Your task to perform on an android device: open sync settings in chrome Image 0: 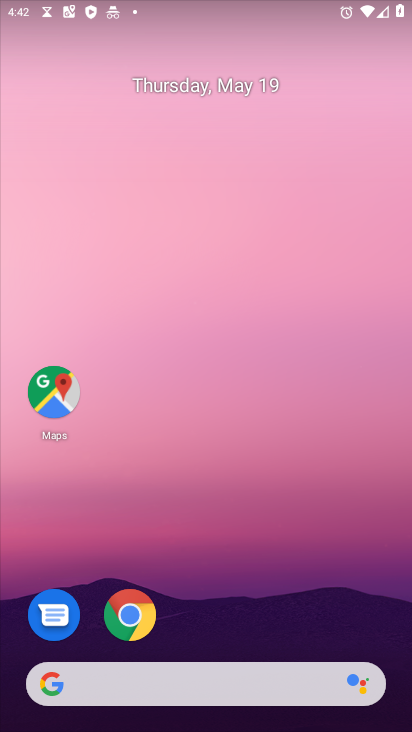
Step 0: drag from (302, 671) to (181, 153)
Your task to perform on an android device: open sync settings in chrome Image 1: 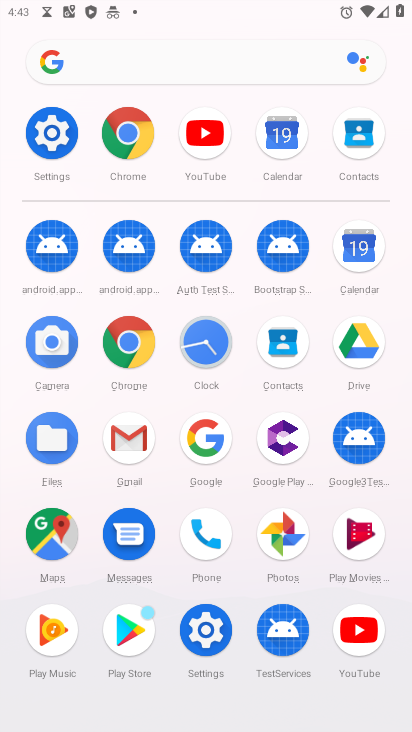
Step 1: click (115, 131)
Your task to perform on an android device: open sync settings in chrome Image 2: 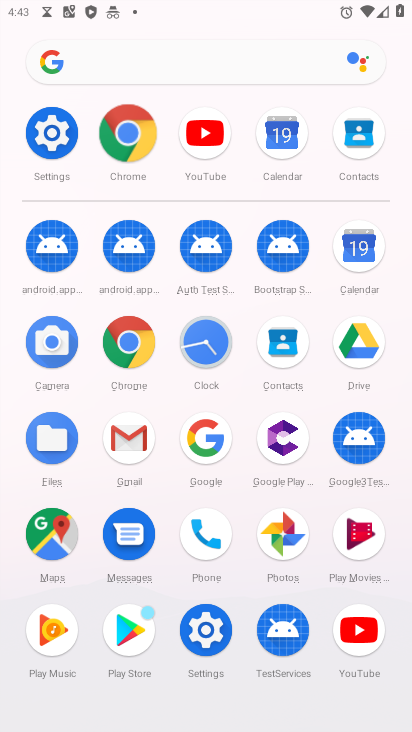
Step 2: click (115, 131)
Your task to perform on an android device: open sync settings in chrome Image 3: 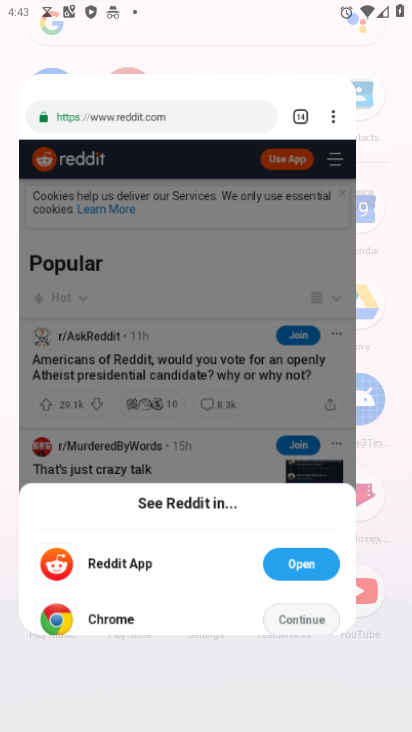
Step 3: click (115, 132)
Your task to perform on an android device: open sync settings in chrome Image 4: 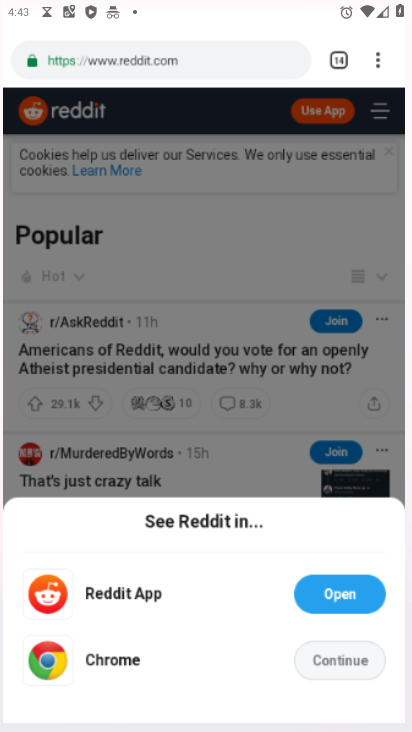
Step 4: click (114, 133)
Your task to perform on an android device: open sync settings in chrome Image 5: 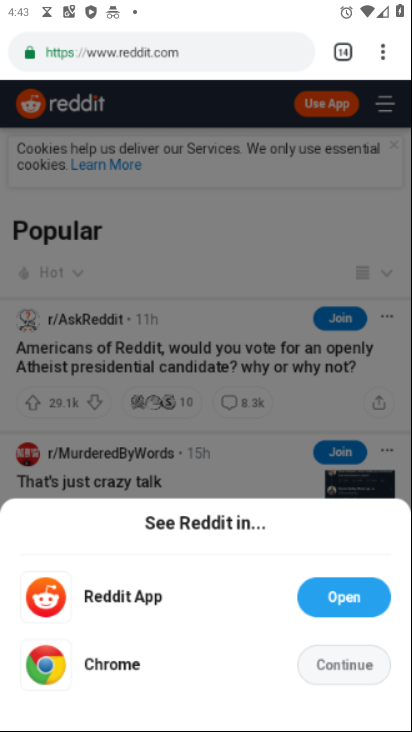
Step 5: click (113, 133)
Your task to perform on an android device: open sync settings in chrome Image 6: 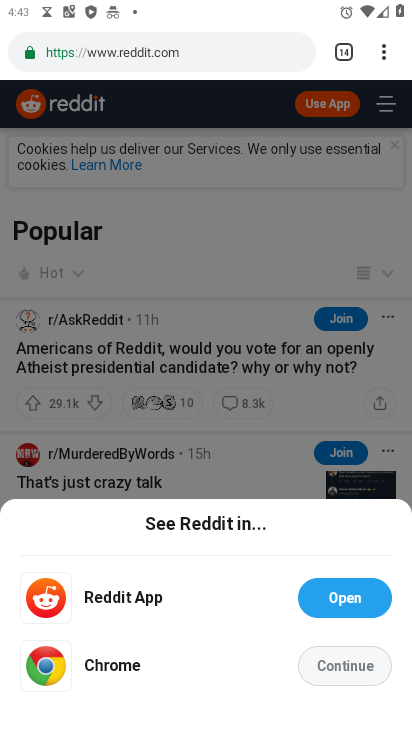
Step 6: click (156, 281)
Your task to perform on an android device: open sync settings in chrome Image 7: 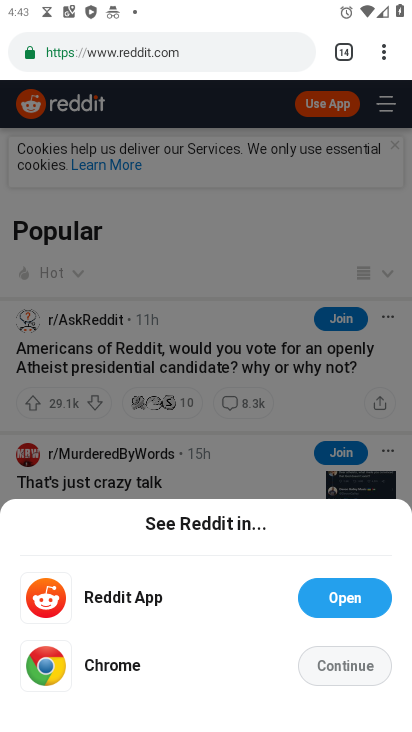
Step 7: click (158, 281)
Your task to perform on an android device: open sync settings in chrome Image 8: 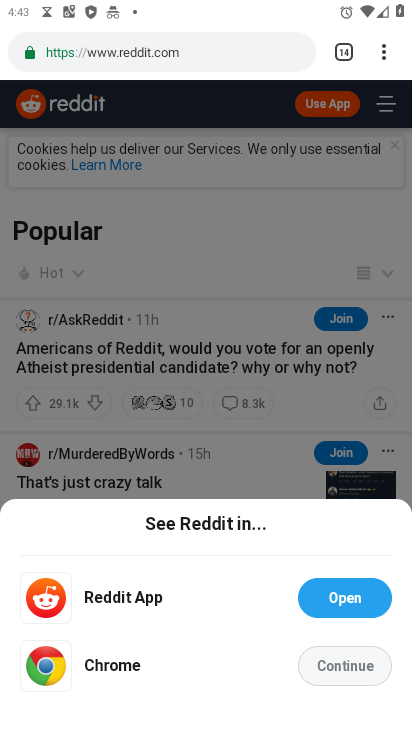
Step 8: click (158, 281)
Your task to perform on an android device: open sync settings in chrome Image 9: 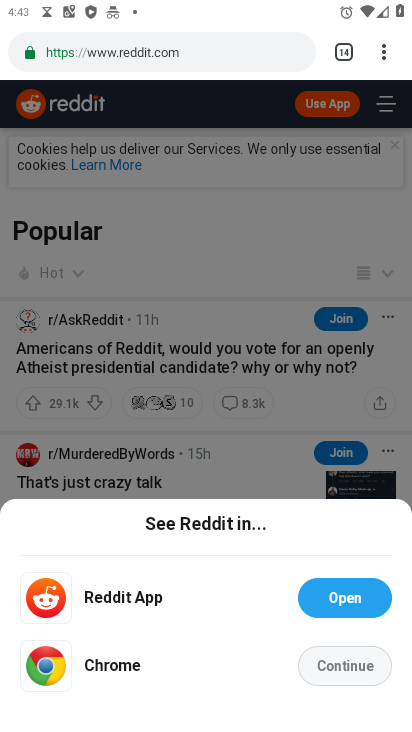
Step 9: click (159, 281)
Your task to perform on an android device: open sync settings in chrome Image 10: 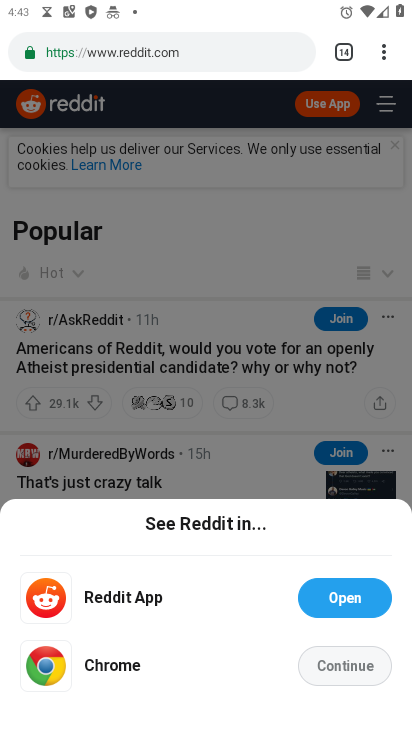
Step 10: click (182, 247)
Your task to perform on an android device: open sync settings in chrome Image 11: 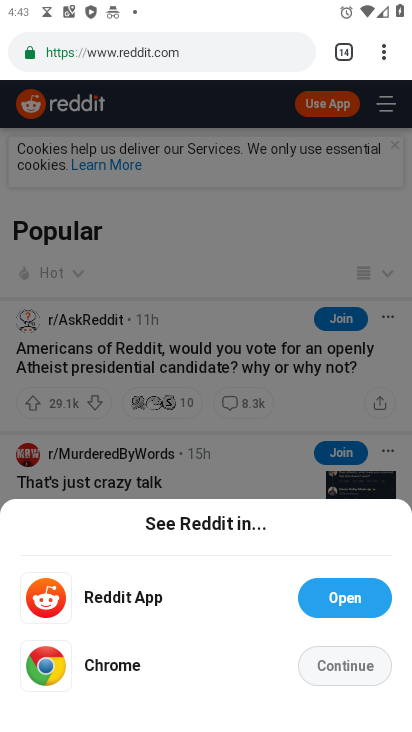
Step 11: click (184, 245)
Your task to perform on an android device: open sync settings in chrome Image 12: 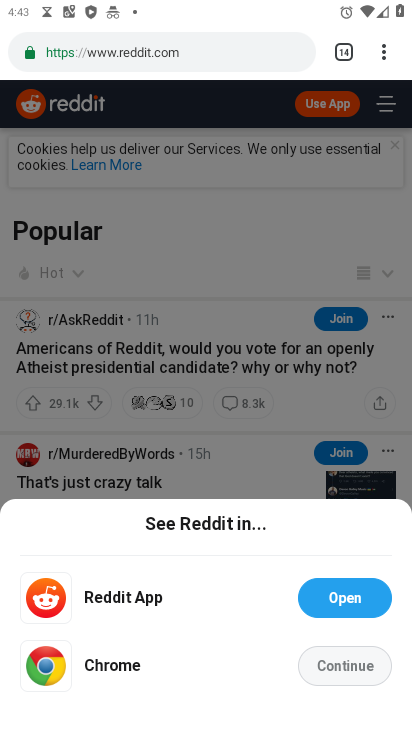
Step 12: click (187, 249)
Your task to perform on an android device: open sync settings in chrome Image 13: 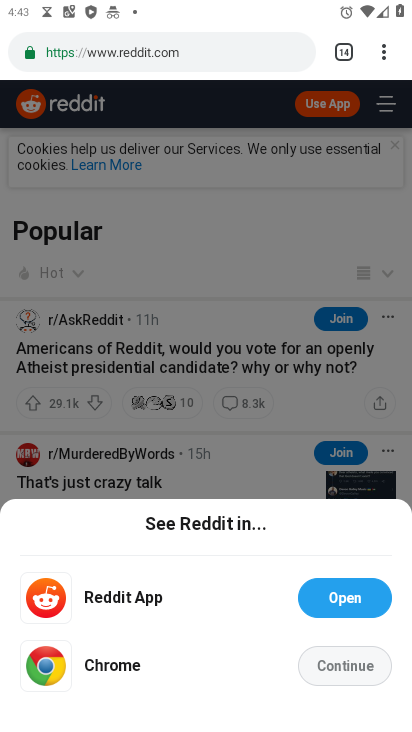
Step 13: click (304, 211)
Your task to perform on an android device: open sync settings in chrome Image 14: 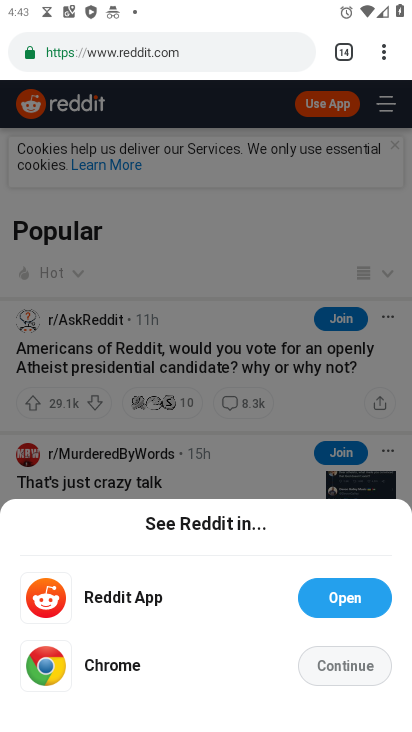
Step 14: click (304, 211)
Your task to perform on an android device: open sync settings in chrome Image 15: 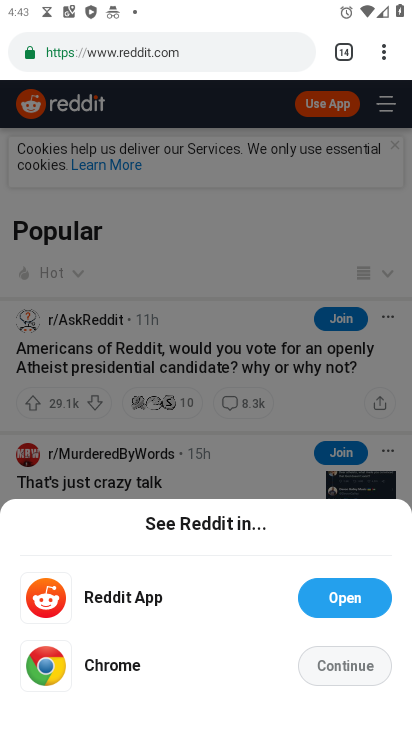
Step 15: click (304, 211)
Your task to perform on an android device: open sync settings in chrome Image 16: 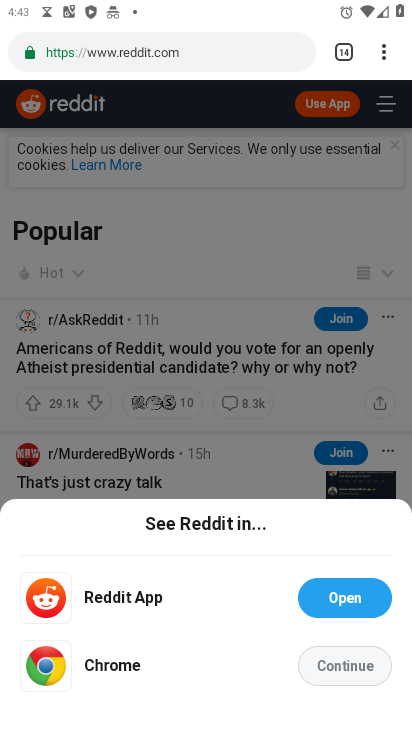
Step 16: press back button
Your task to perform on an android device: open sync settings in chrome Image 17: 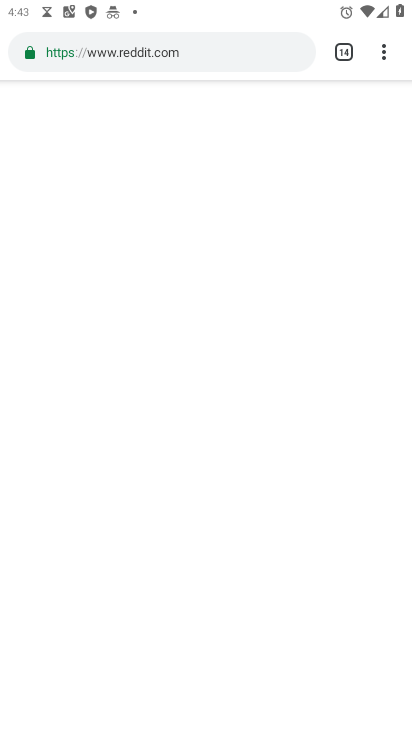
Step 17: press back button
Your task to perform on an android device: open sync settings in chrome Image 18: 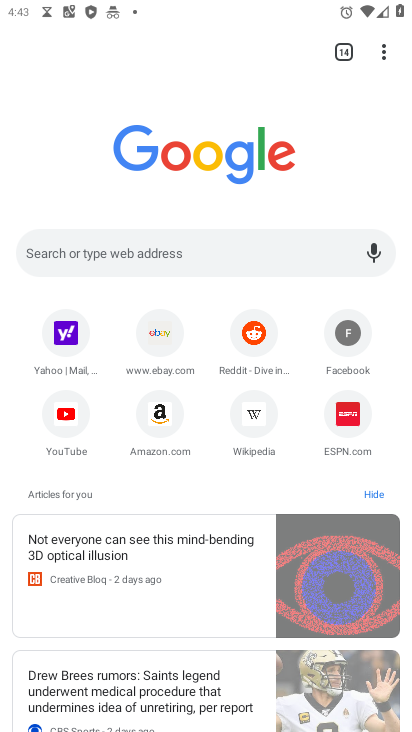
Step 18: press back button
Your task to perform on an android device: open sync settings in chrome Image 19: 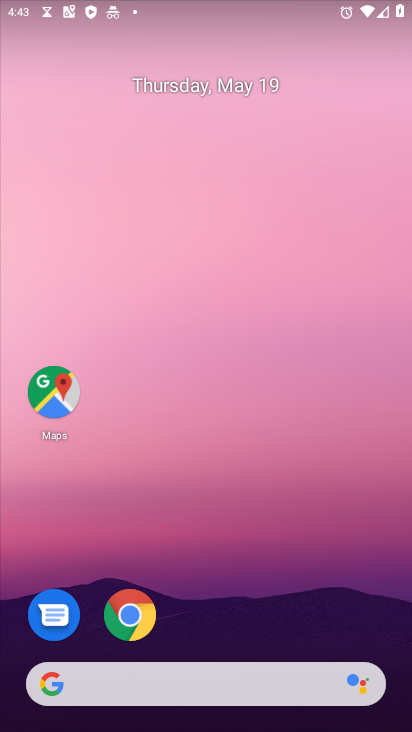
Step 19: click (379, 46)
Your task to perform on an android device: open sync settings in chrome Image 20: 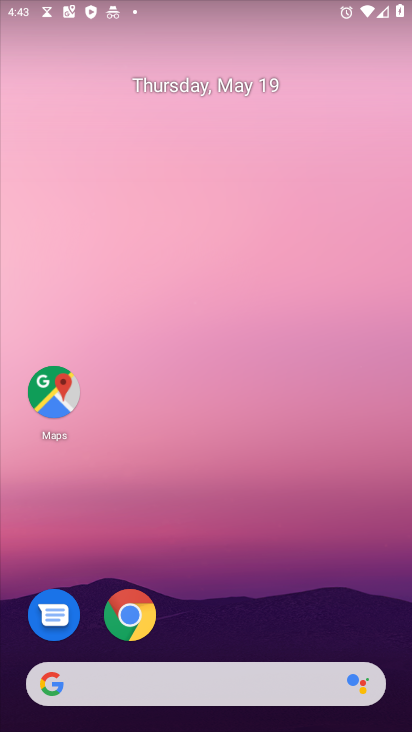
Step 20: drag from (262, 604) to (192, 241)
Your task to perform on an android device: open sync settings in chrome Image 21: 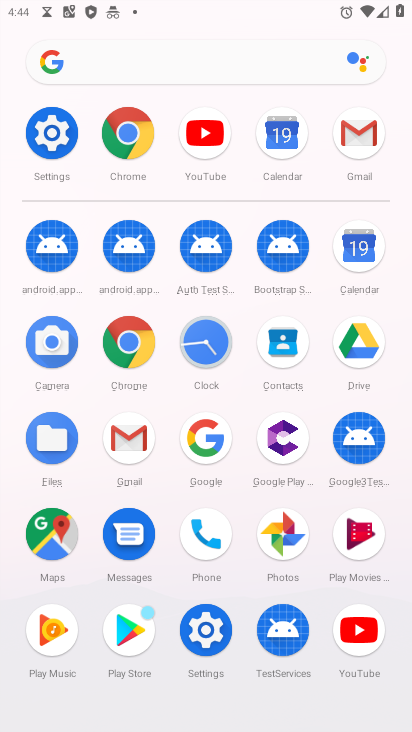
Step 21: click (118, 134)
Your task to perform on an android device: open sync settings in chrome Image 22: 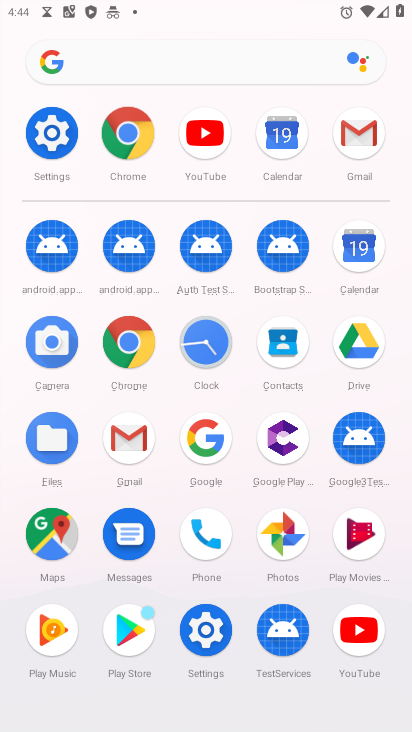
Step 22: click (119, 135)
Your task to perform on an android device: open sync settings in chrome Image 23: 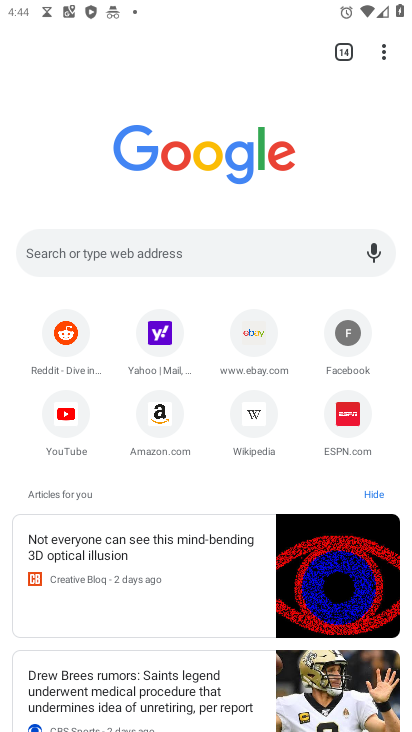
Step 23: click (382, 60)
Your task to perform on an android device: open sync settings in chrome Image 24: 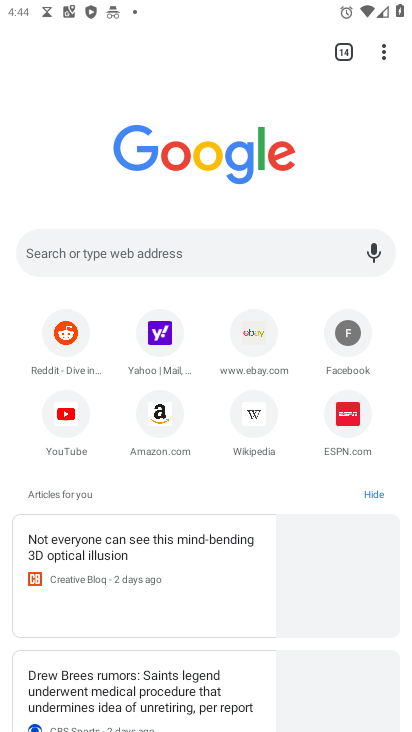
Step 24: drag from (385, 62) to (201, 439)
Your task to perform on an android device: open sync settings in chrome Image 25: 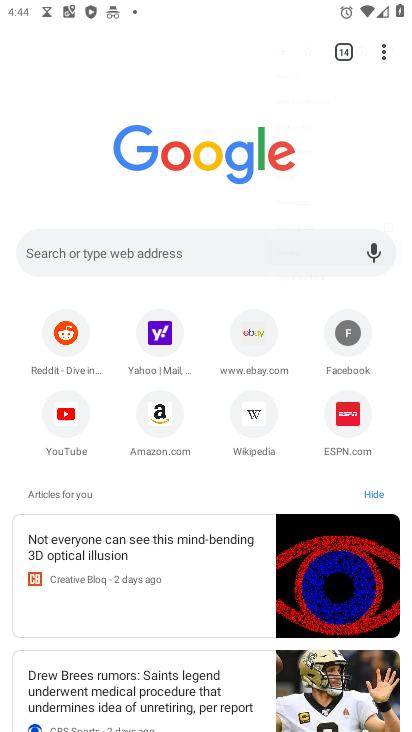
Step 25: click (190, 430)
Your task to perform on an android device: open sync settings in chrome Image 26: 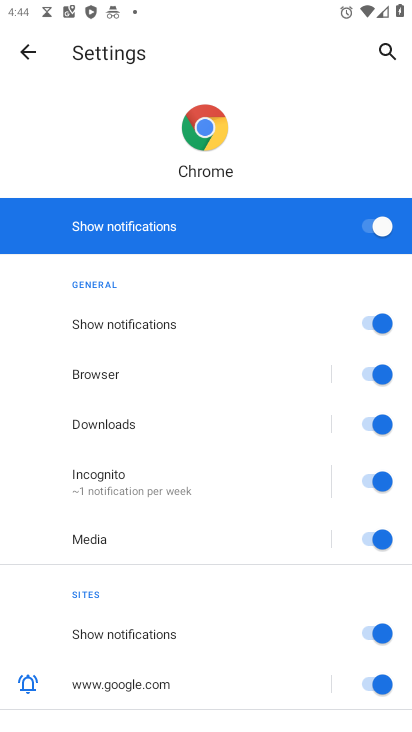
Step 26: drag from (161, 490) to (47, 133)
Your task to perform on an android device: open sync settings in chrome Image 27: 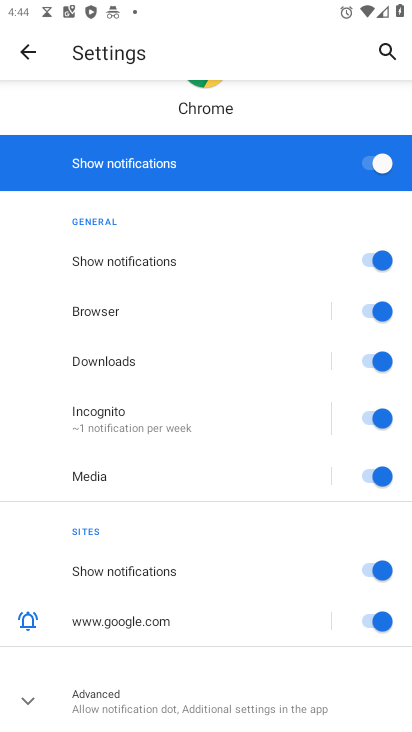
Step 27: click (29, 44)
Your task to perform on an android device: open sync settings in chrome Image 28: 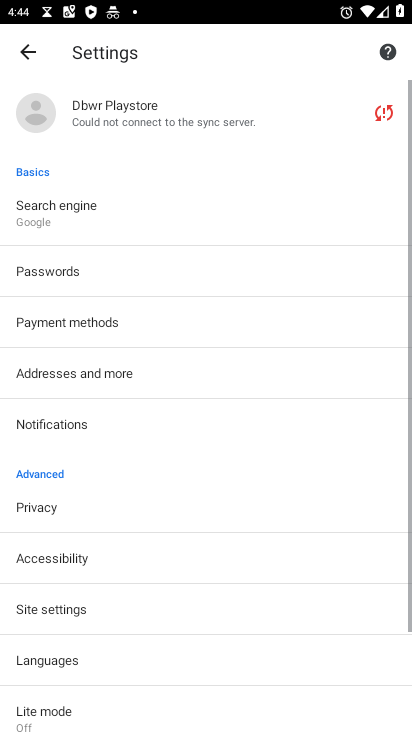
Step 28: drag from (98, 505) to (29, 79)
Your task to perform on an android device: open sync settings in chrome Image 29: 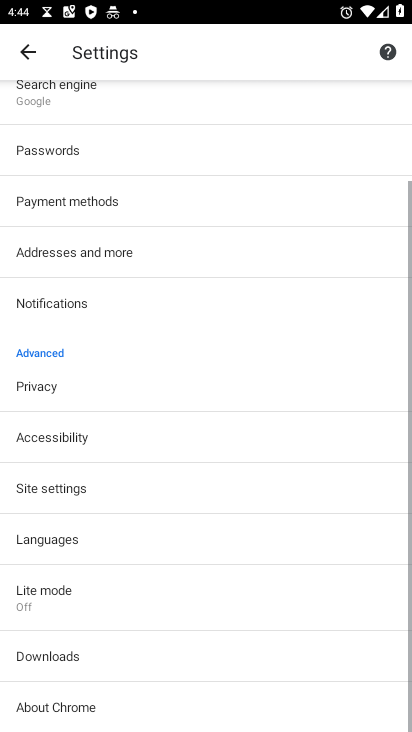
Step 29: drag from (174, 460) to (125, 192)
Your task to perform on an android device: open sync settings in chrome Image 30: 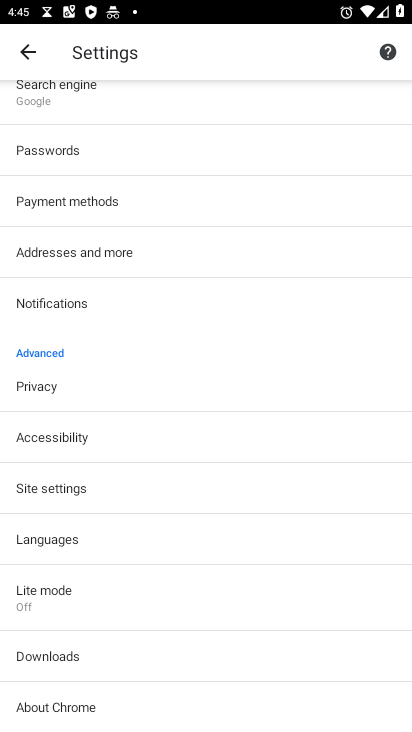
Step 30: click (43, 487)
Your task to perform on an android device: open sync settings in chrome Image 31: 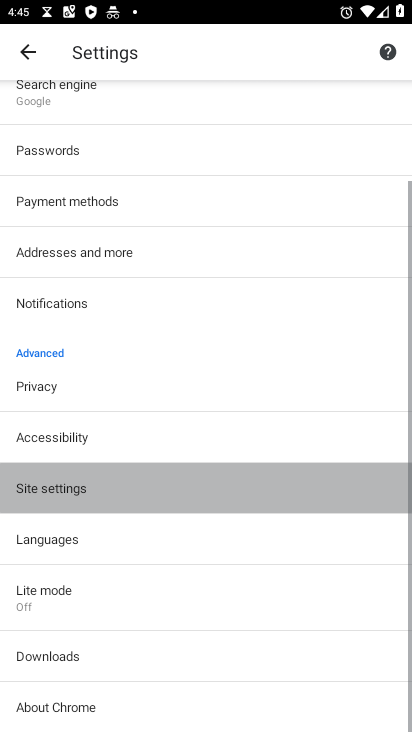
Step 31: click (42, 486)
Your task to perform on an android device: open sync settings in chrome Image 32: 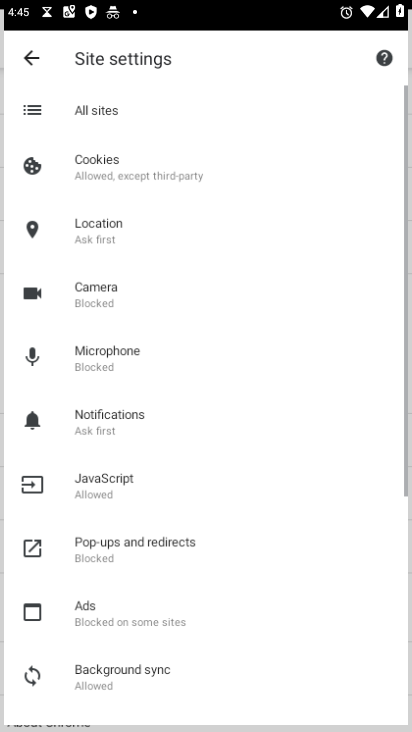
Step 32: click (42, 486)
Your task to perform on an android device: open sync settings in chrome Image 33: 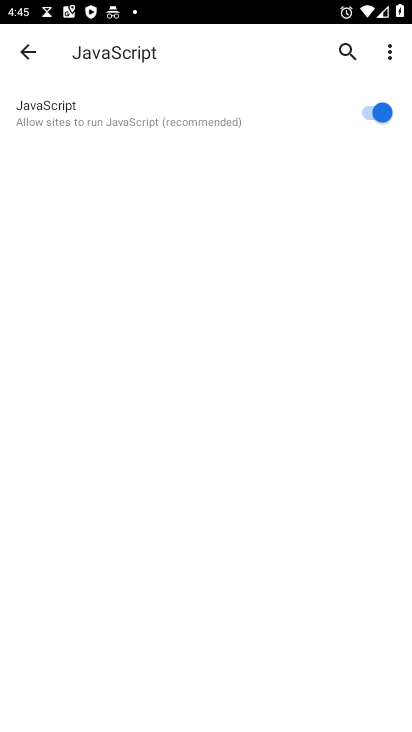
Step 33: click (24, 50)
Your task to perform on an android device: open sync settings in chrome Image 34: 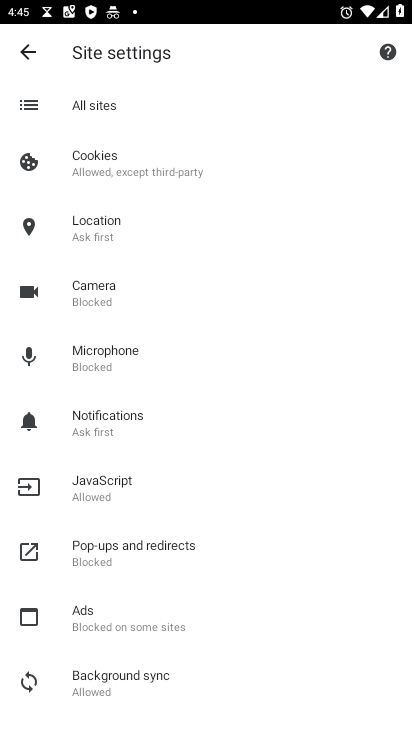
Step 34: click (107, 685)
Your task to perform on an android device: open sync settings in chrome Image 35: 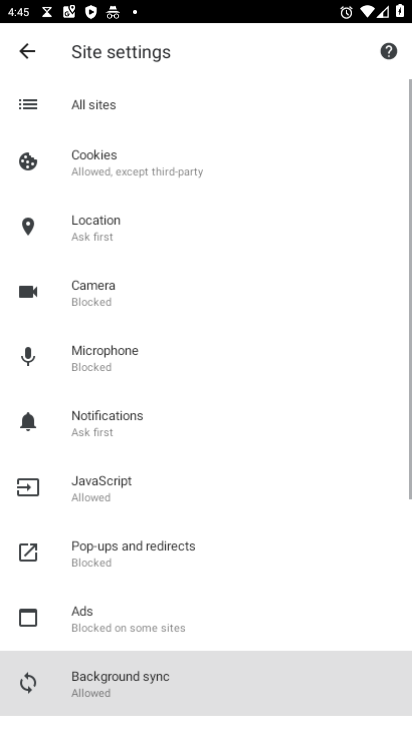
Step 35: click (107, 685)
Your task to perform on an android device: open sync settings in chrome Image 36: 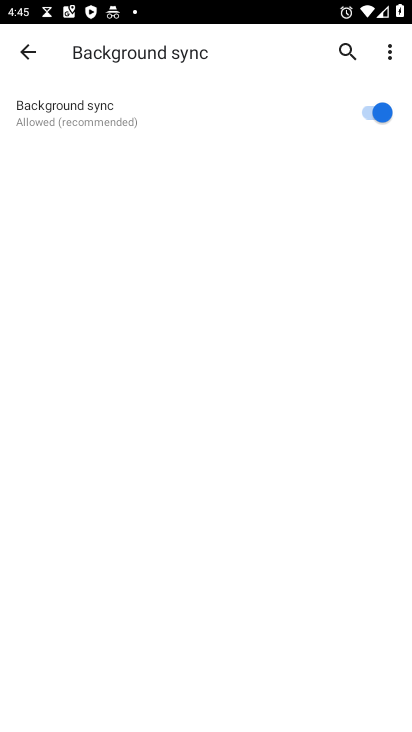
Step 36: click (107, 685)
Your task to perform on an android device: open sync settings in chrome Image 37: 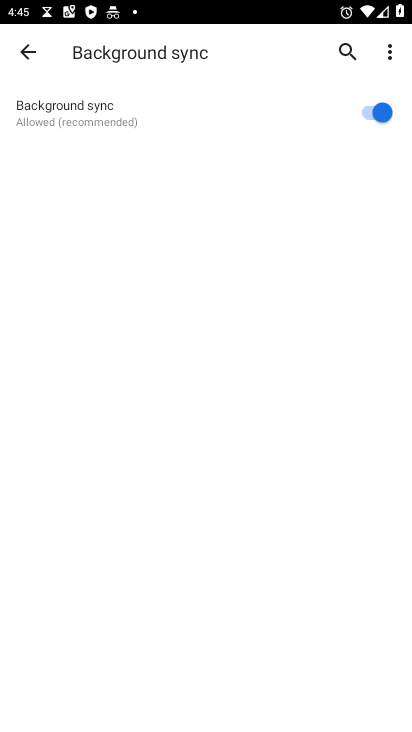
Step 37: click (107, 685)
Your task to perform on an android device: open sync settings in chrome Image 38: 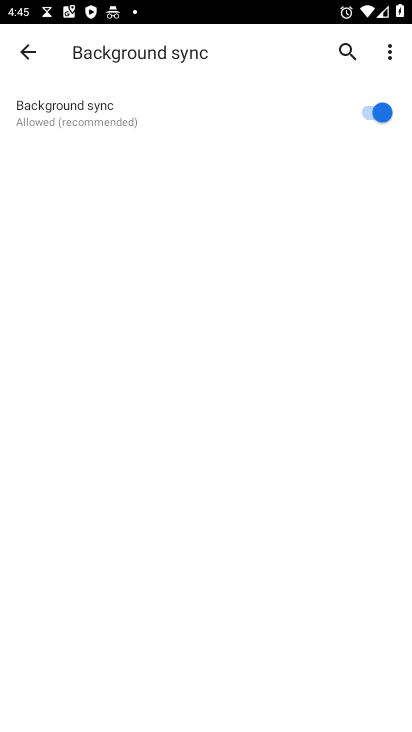
Step 38: click (25, 55)
Your task to perform on an android device: open sync settings in chrome Image 39: 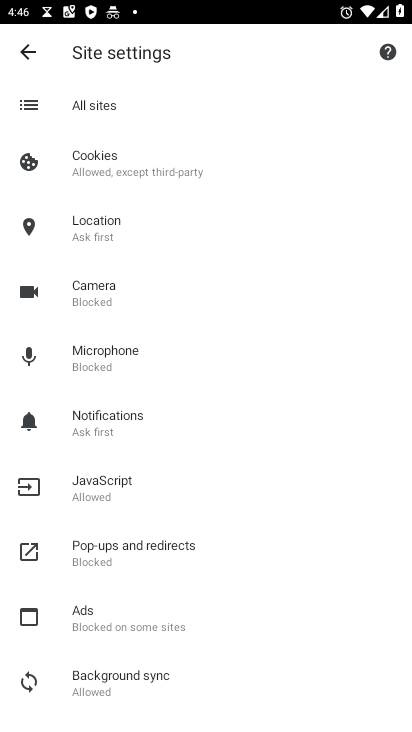
Step 39: click (114, 684)
Your task to perform on an android device: open sync settings in chrome Image 40: 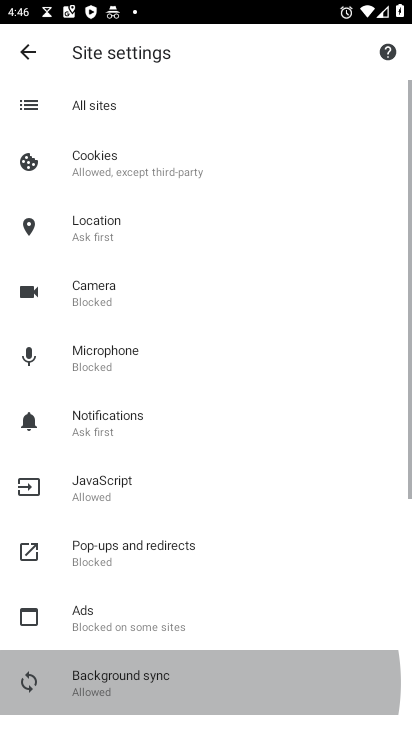
Step 40: click (115, 683)
Your task to perform on an android device: open sync settings in chrome Image 41: 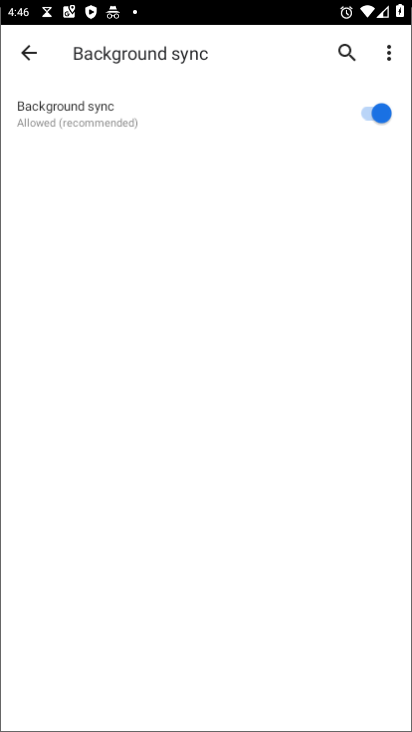
Step 41: click (118, 666)
Your task to perform on an android device: open sync settings in chrome Image 42: 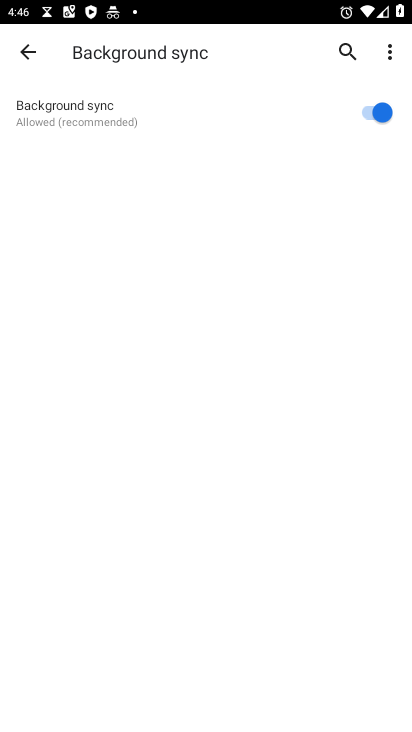
Step 42: task complete